Your task to perform on an android device: Search for seafood restaurants on Google Maps Image 0: 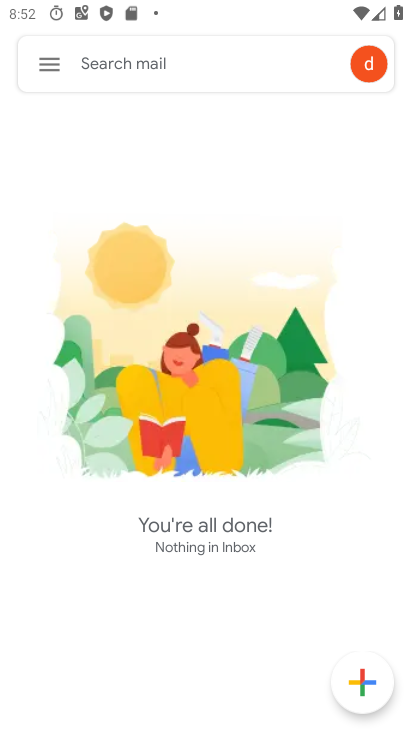
Step 0: press back button
Your task to perform on an android device: Search for seafood restaurants on Google Maps Image 1: 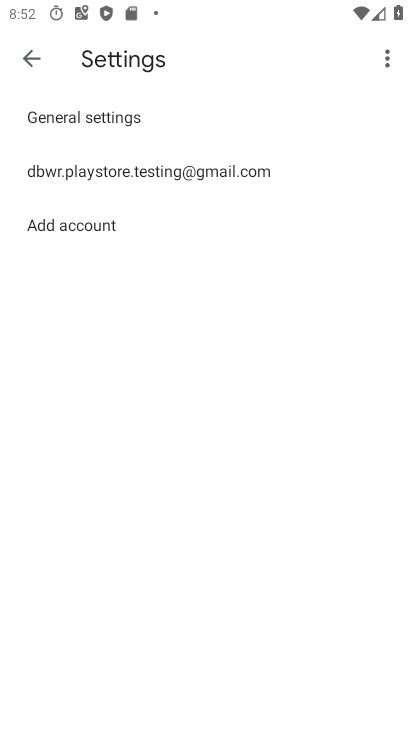
Step 1: press home button
Your task to perform on an android device: Search for seafood restaurants on Google Maps Image 2: 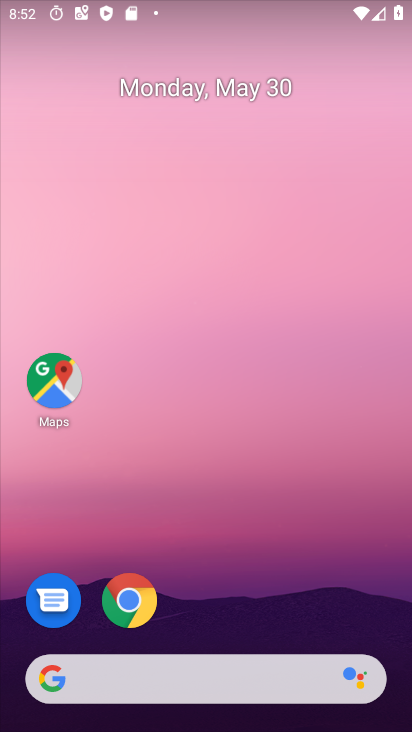
Step 2: drag from (239, 598) to (232, 48)
Your task to perform on an android device: Search for seafood restaurants on Google Maps Image 3: 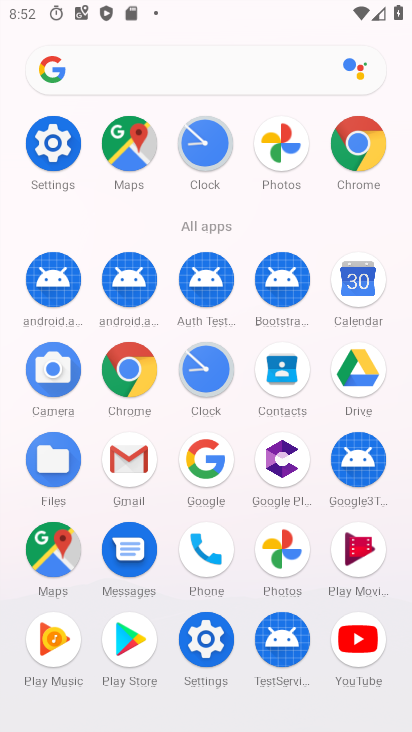
Step 3: click (127, 142)
Your task to perform on an android device: Search for seafood restaurants on Google Maps Image 4: 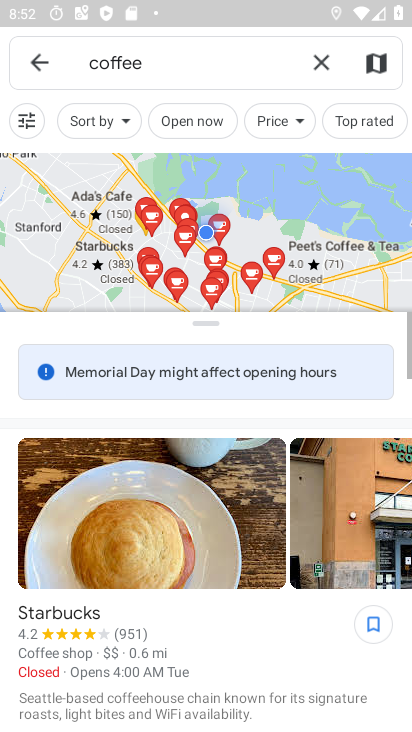
Step 4: click (315, 63)
Your task to perform on an android device: Search for seafood restaurants on Google Maps Image 5: 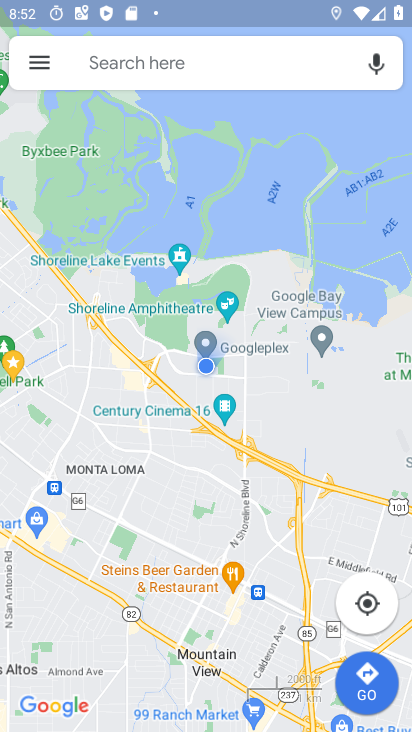
Step 5: click (205, 56)
Your task to perform on an android device: Search for seafood restaurants on Google Maps Image 6: 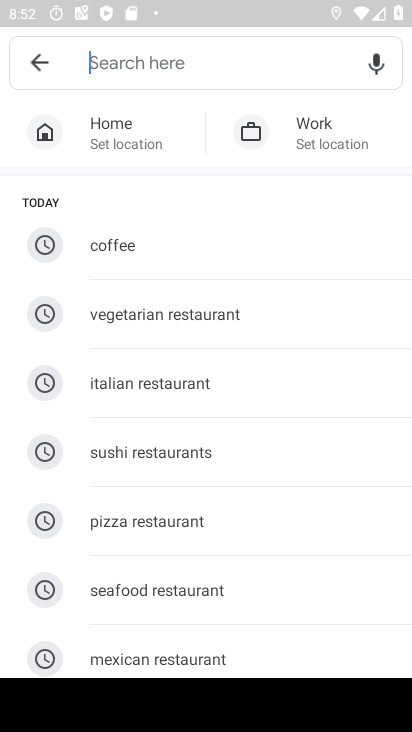
Step 6: click (182, 592)
Your task to perform on an android device: Search for seafood restaurants on Google Maps Image 7: 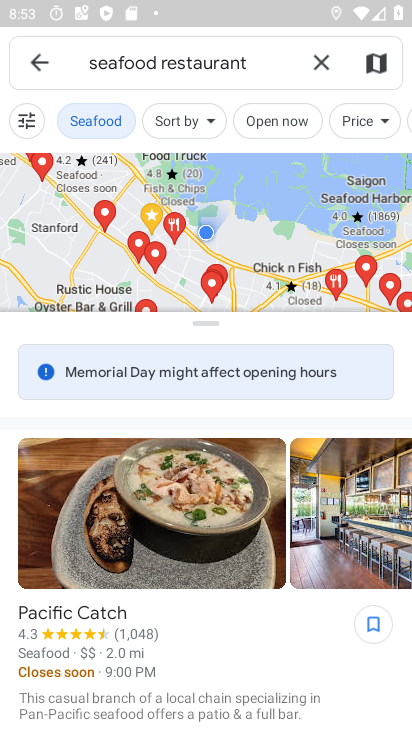
Step 7: task complete